Your task to perform on an android device: turn off smart reply in the gmail app Image 0: 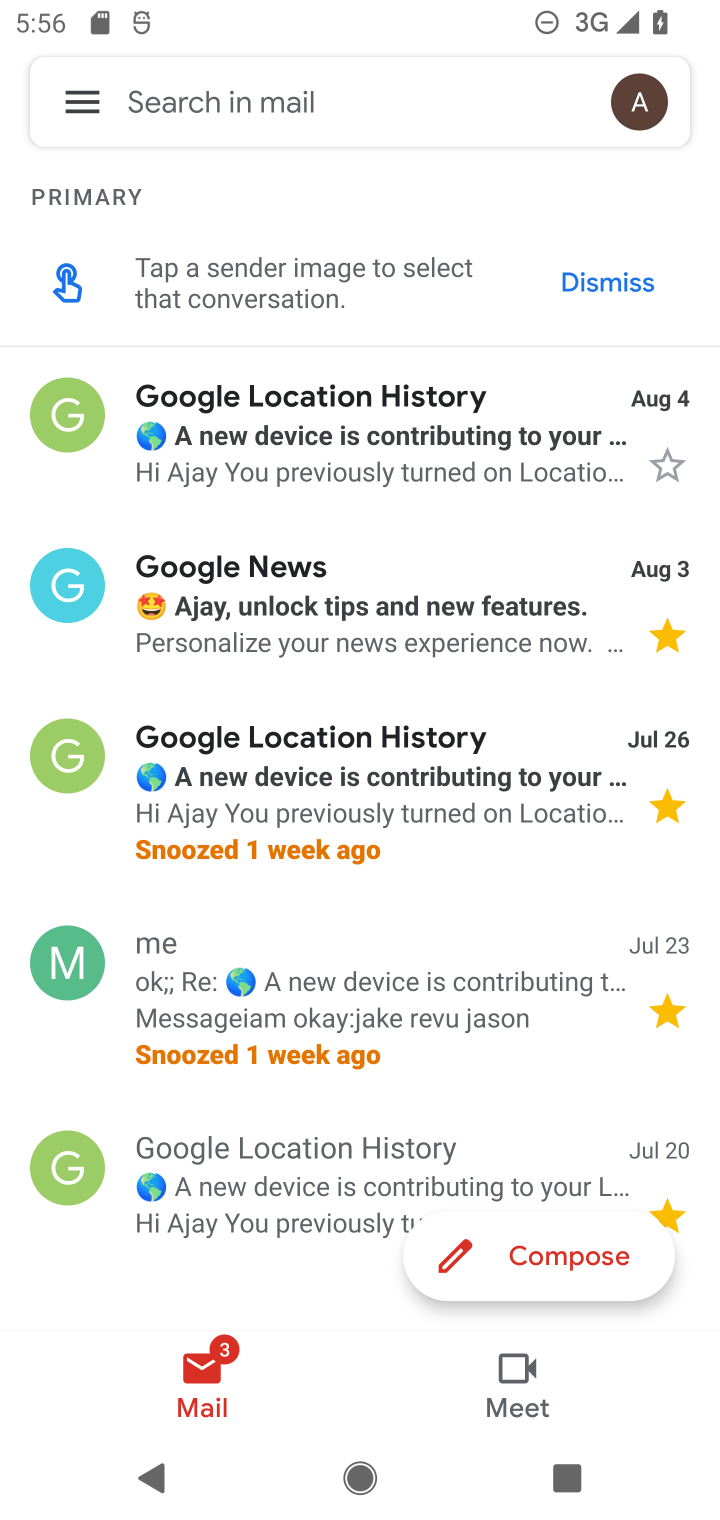
Step 0: click (79, 110)
Your task to perform on an android device: turn off smart reply in the gmail app Image 1: 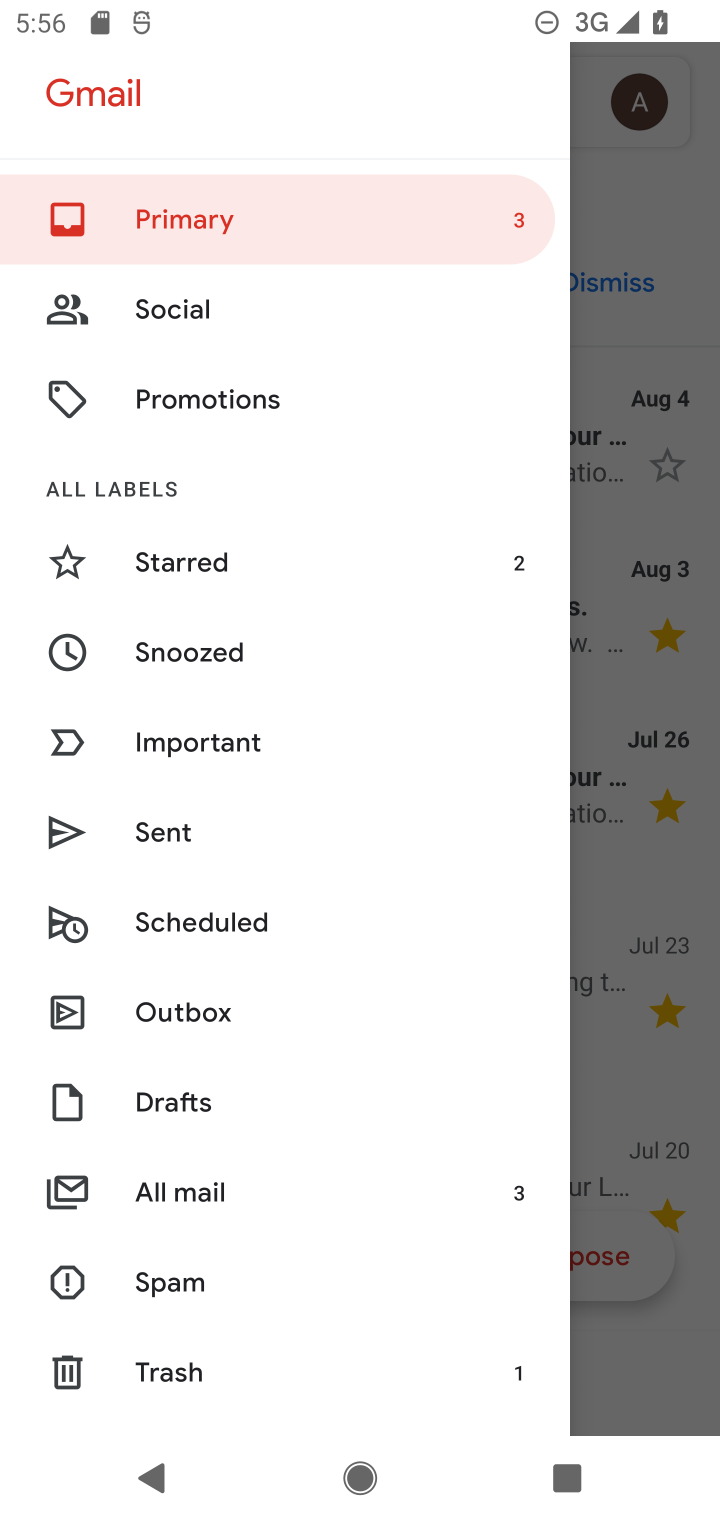
Step 1: drag from (283, 1298) to (386, 332)
Your task to perform on an android device: turn off smart reply in the gmail app Image 2: 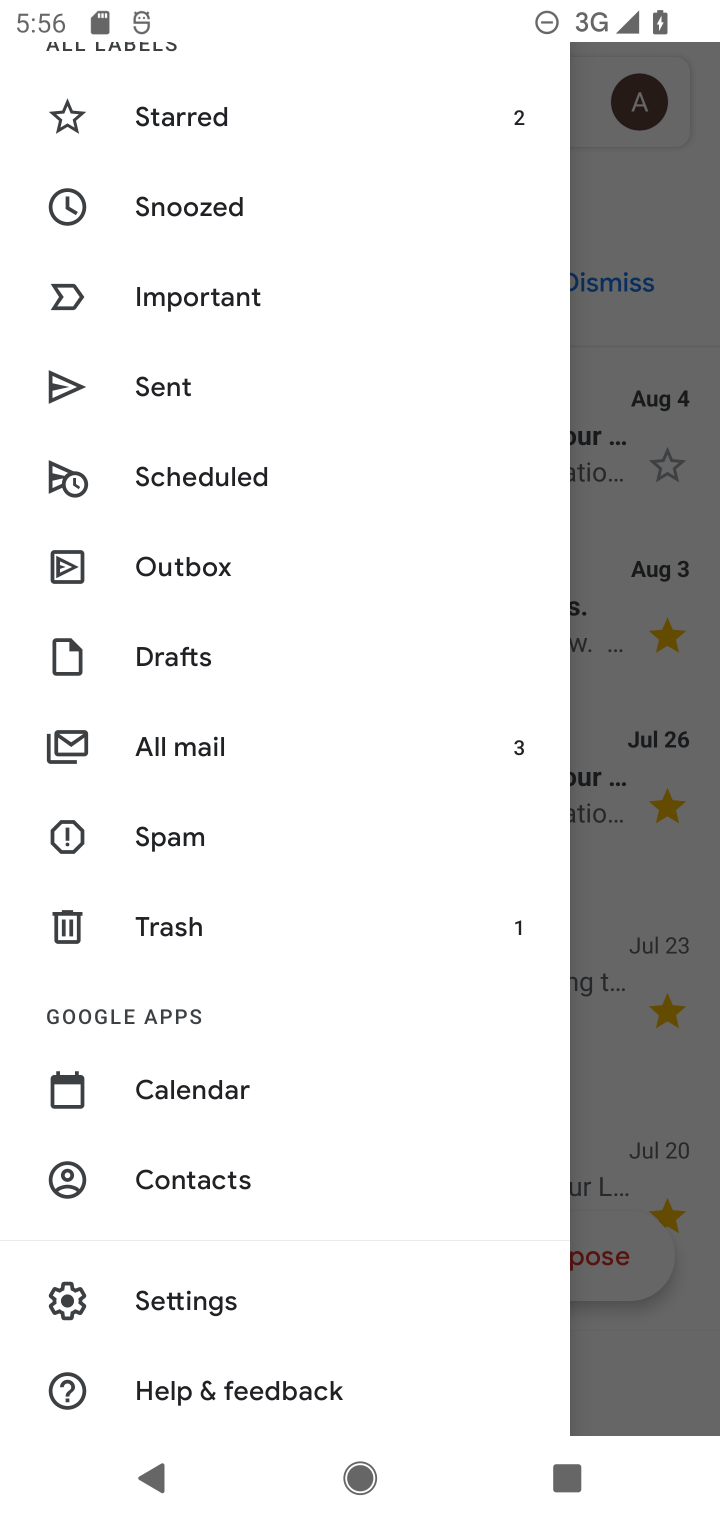
Step 2: click (211, 1291)
Your task to perform on an android device: turn off smart reply in the gmail app Image 3: 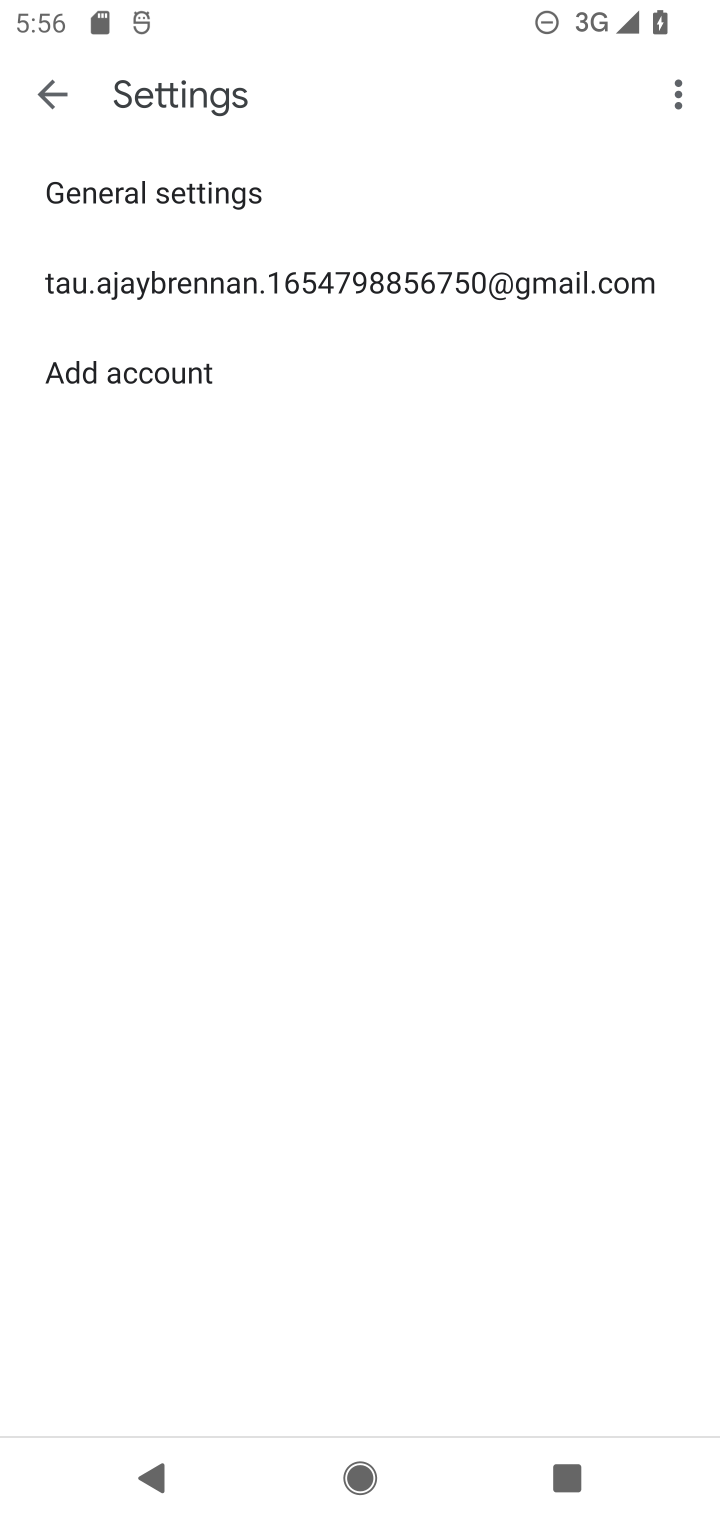
Step 3: click (333, 266)
Your task to perform on an android device: turn off smart reply in the gmail app Image 4: 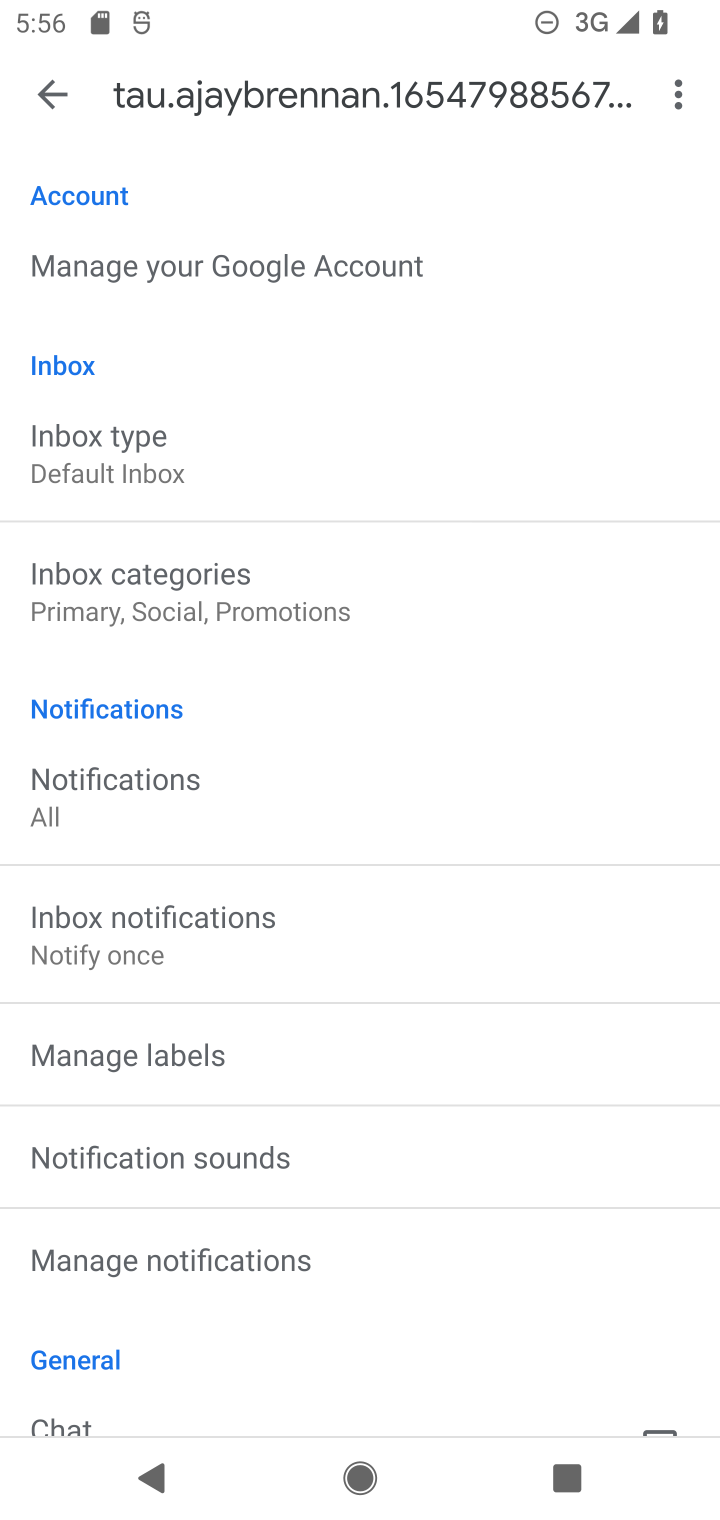
Step 4: drag from (361, 1319) to (430, 7)
Your task to perform on an android device: turn off smart reply in the gmail app Image 5: 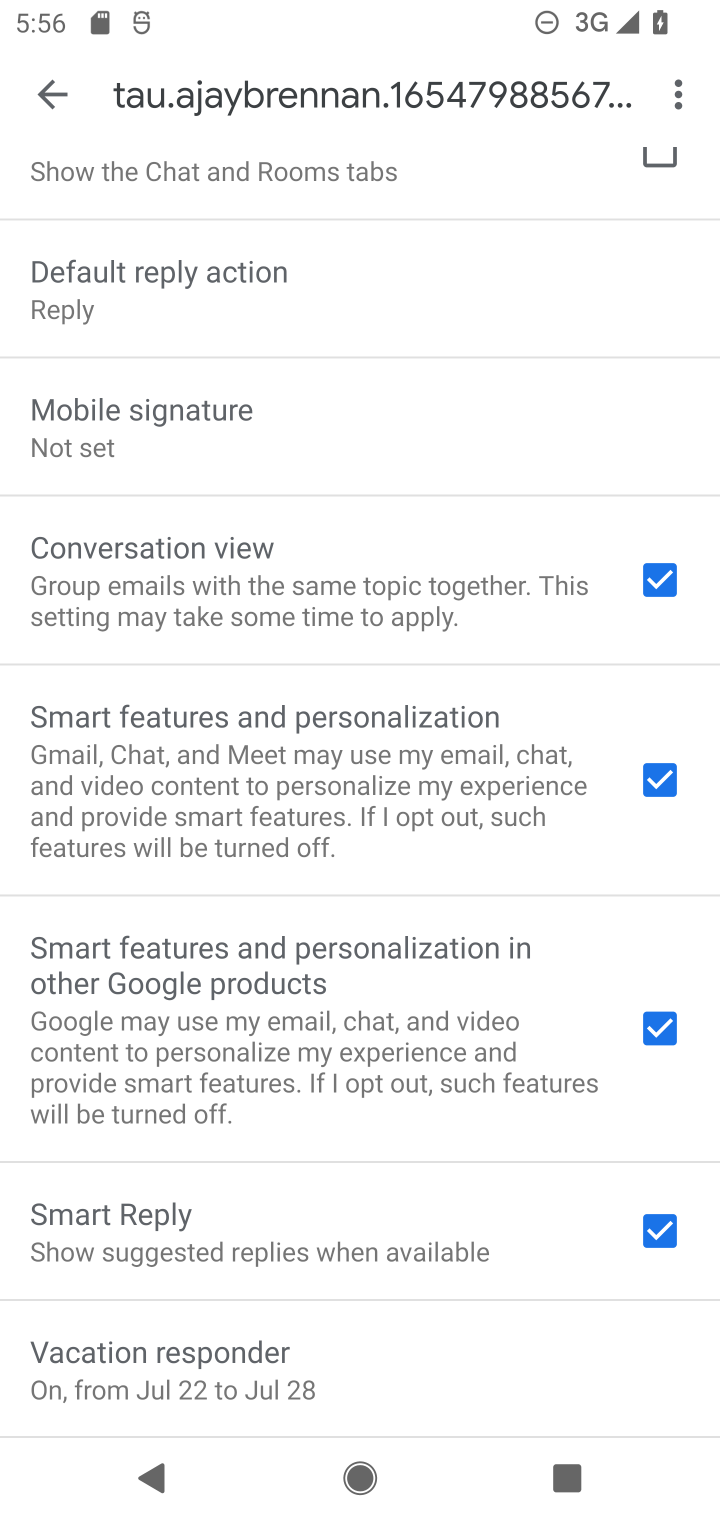
Step 5: click (652, 1224)
Your task to perform on an android device: turn off smart reply in the gmail app Image 6: 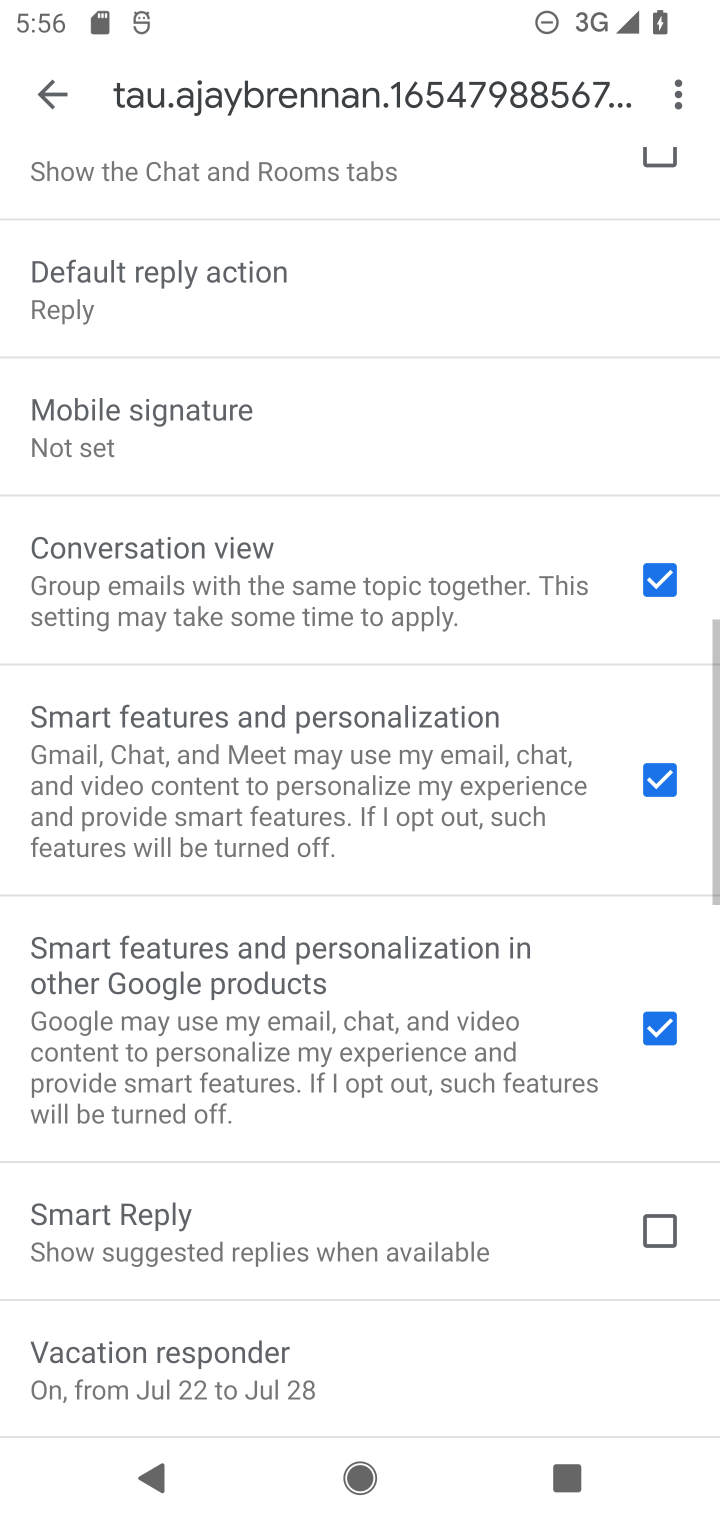
Step 6: task complete